Your task to perform on an android device: turn on showing notifications on the lock screen Image 0: 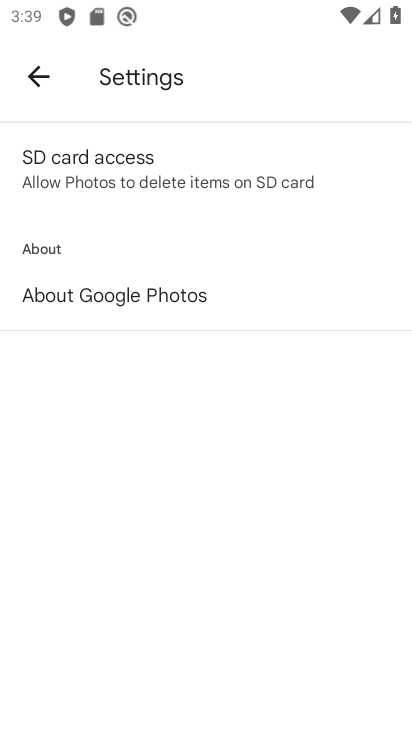
Step 0: press home button
Your task to perform on an android device: turn on showing notifications on the lock screen Image 1: 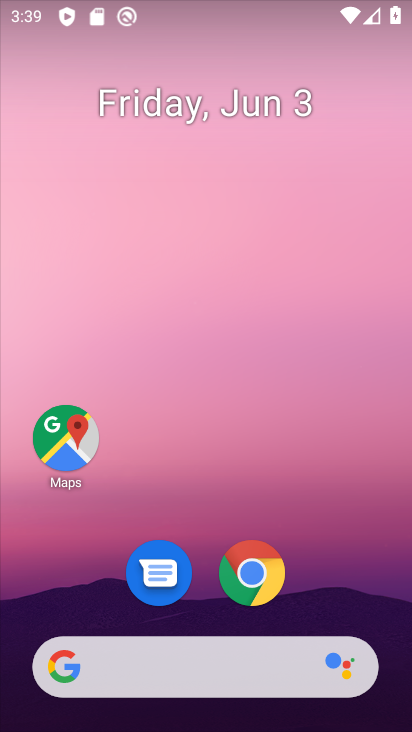
Step 1: drag from (375, 712) to (303, 173)
Your task to perform on an android device: turn on showing notifications on the lock screen Image 2: 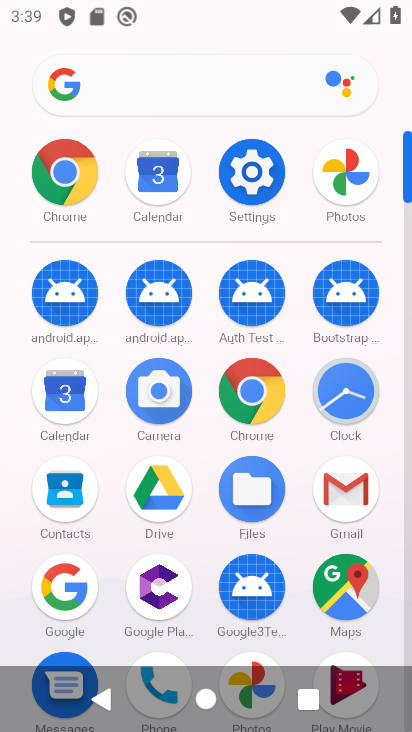
Step 2: click (244, 174)
Your task to perform on an android device: turn on showing notifications on the lock screen Image 3: 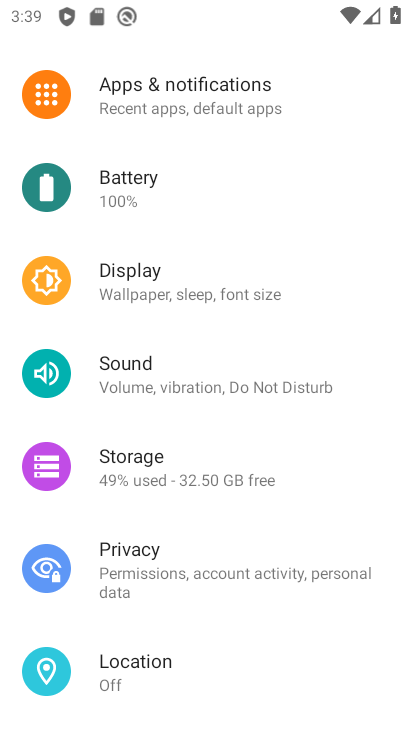
Step 3: click (192, 92)
Your task to perform on an android device: turn on showing notifications on the lock screen Image 4: 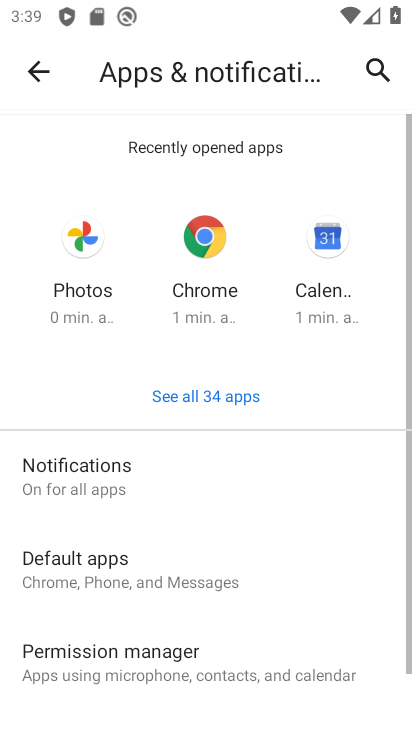
Step 4: drag from (256, 709) to (253, 649)
Your task to perform on an android device: turn on showing notifications on the lock screen Image 5: 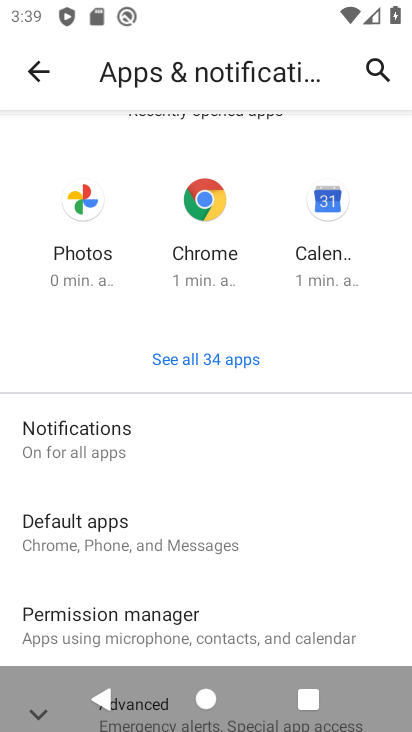
Step 5: click (85, 450)
Your task to perform on an android device: turn on showing notifications on the lock screen Image 6: 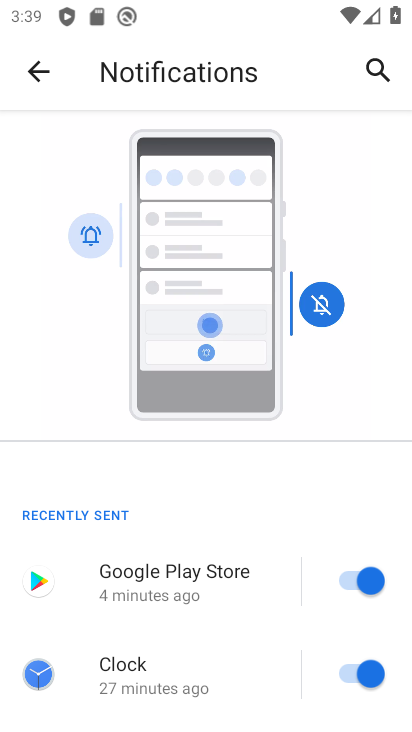
Step 6: drag from (291, 687) to (272, 22)
Your task to perform on an android device: turn on showing notifications on the lock screen Image 7: 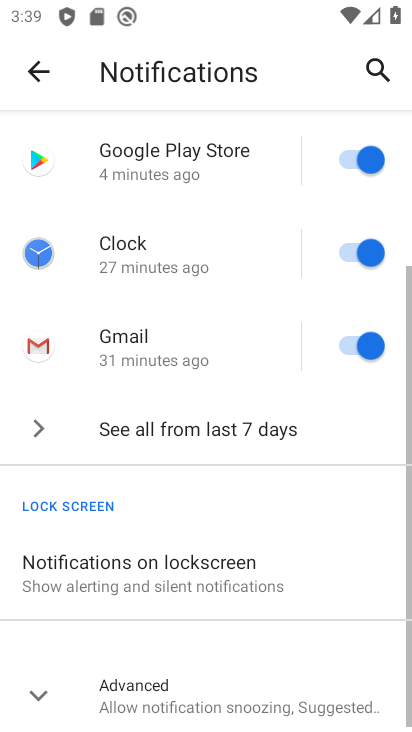
Step 7: click (137, 555)
Your task to perform on an android device: turn on showing notifications on the lock screen Image 8: 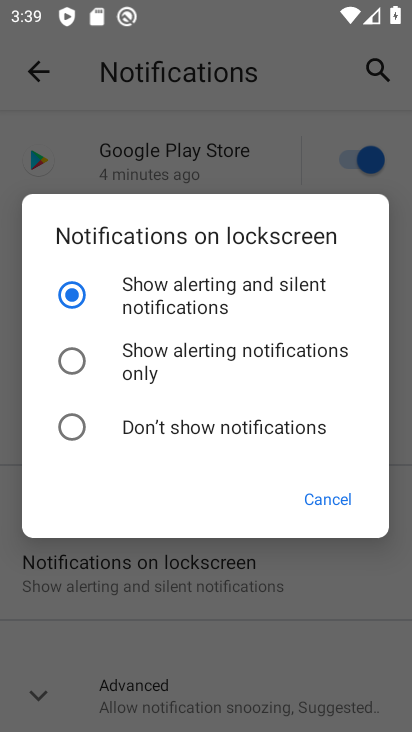
Step 8: task complete